Your task to perform on an android device: turn on the 12-hour format for clock Image 0: 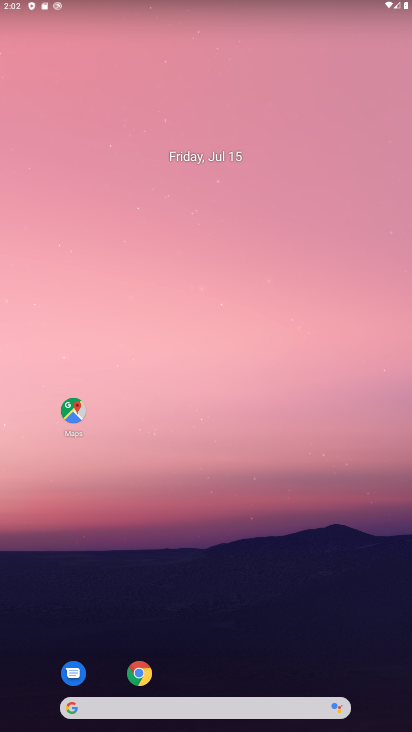
Step 0: drag from (240, 671) to (315, 226)
Your task to perform on an android device: turn on the 12-hour format for clock Image 1: 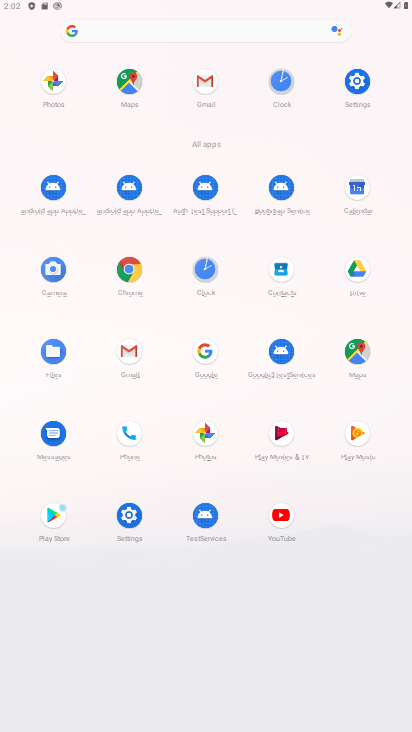
Step 1: click (198, 268)
Your task to perform on an android device: turn on the 12-hour format for clock Image 2: 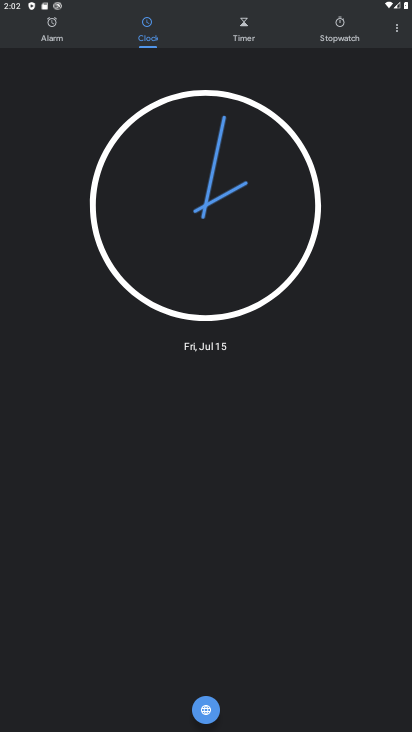
Step 2: click (394, 35)
Your task to perform on an android device: turn on the 12-hour format for clock Image 3: 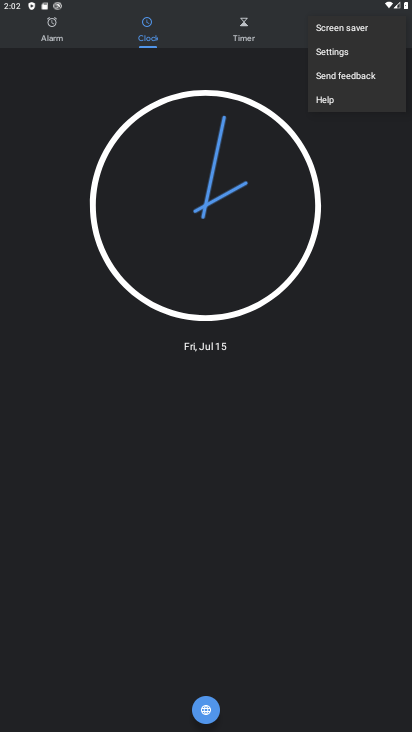
Step 3: click (357, 63)
Your task to perform on an android device: turn on the 12-hour format for clock Image 4: 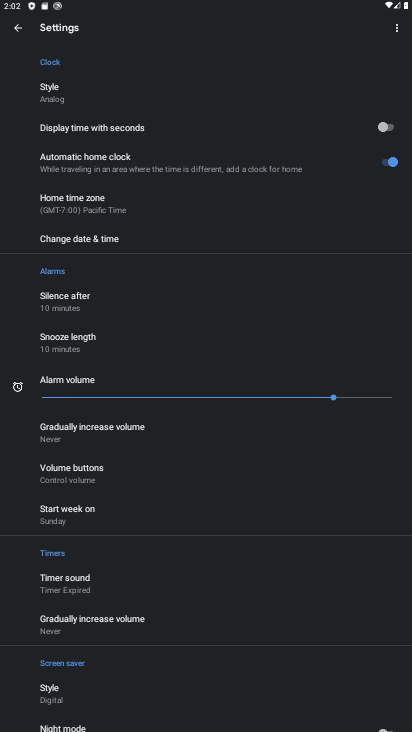
Step 4: click (181, 245)
Your task to perform on an android device: turn on the 12-hour format for clock Image 5: 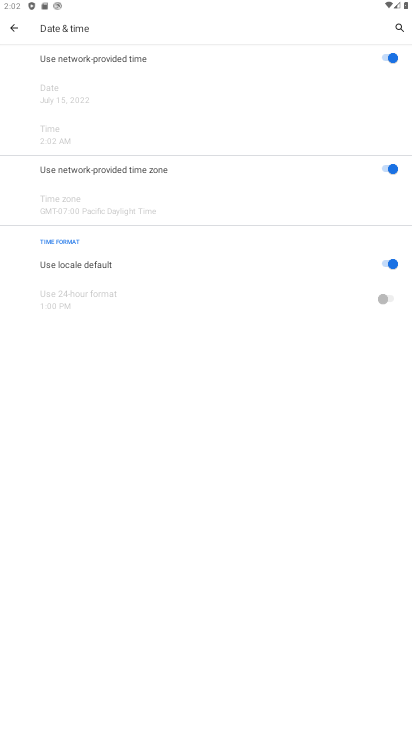
Step 5: task complete